Your task to perform on an android device: Search for Mexican restaurants on Maps Image 0: 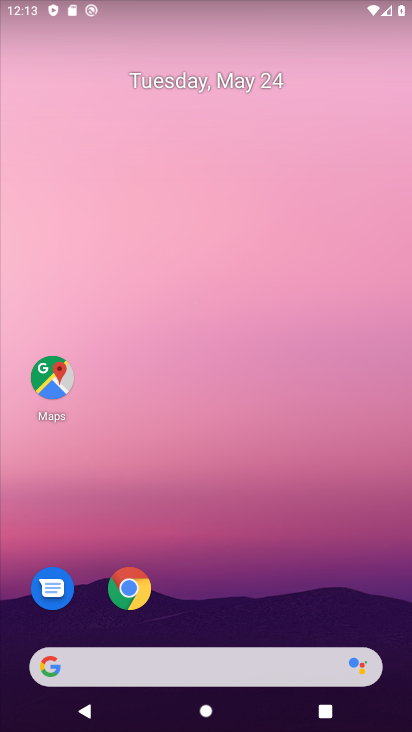
Step 0: click (58, 391)
Your task to perform on an android device: Search for Mexican restaurants on Maps Image 1: 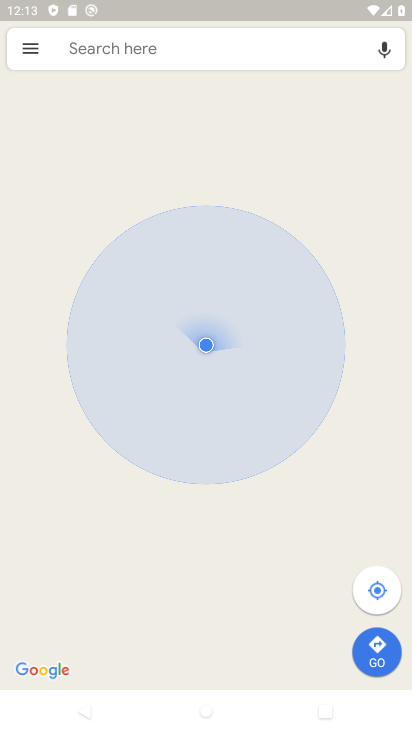
Step 1: click (127, 13)
Your task to perform on an android device: Search for Mexican restaurants on Maps Image 2: 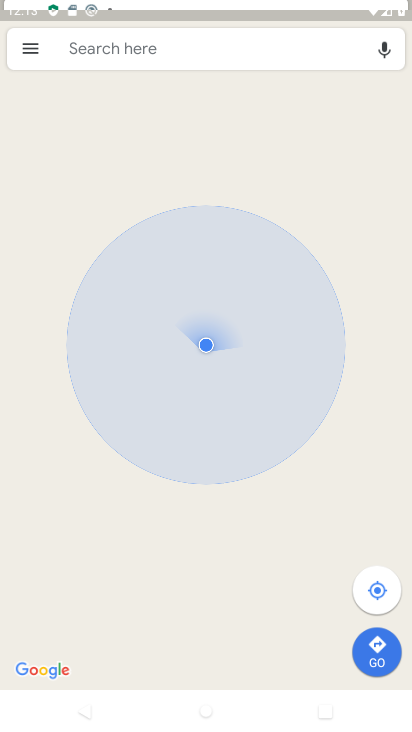
Step 2: click (145, 44)
Your task to perform on an android device: Search for Mexican restaurants on Maps Image 3: 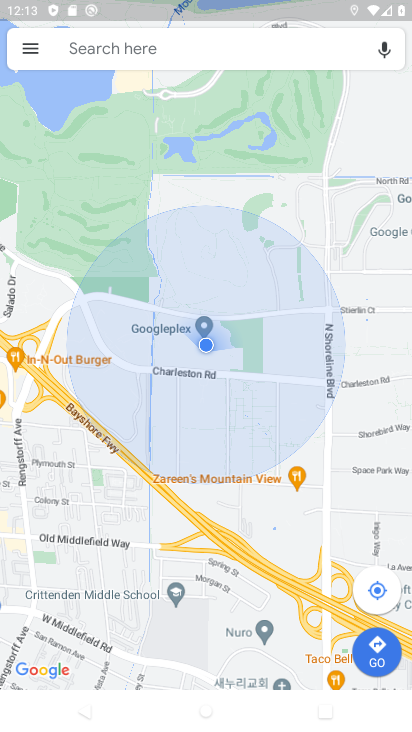
Step 3: click (126, 54)
Your task to perform on an android device: Search for Mexican restaurants on Maps Image 4: 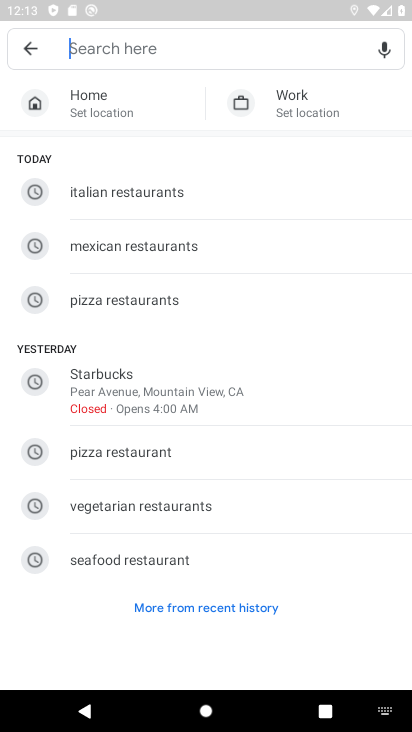
Step 4: type "mexican restaurants"
Your task to perform on an android device: Search for Mexican restaurants on Maps Image 5: 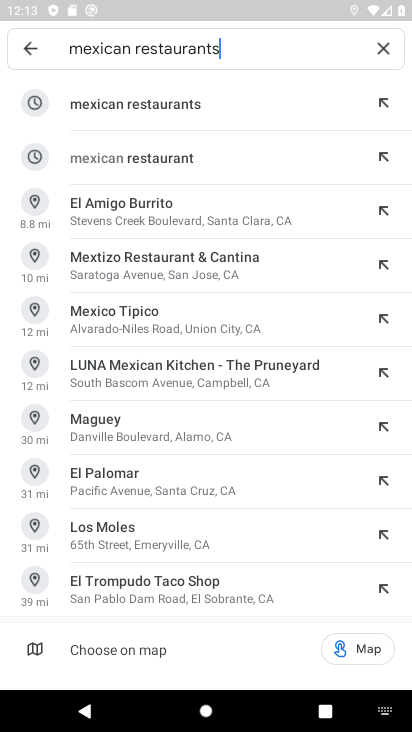
Step 5: click (165, 118)
Your task to perform on an android device: Search for Mexican restaurants on Maps Image 6: 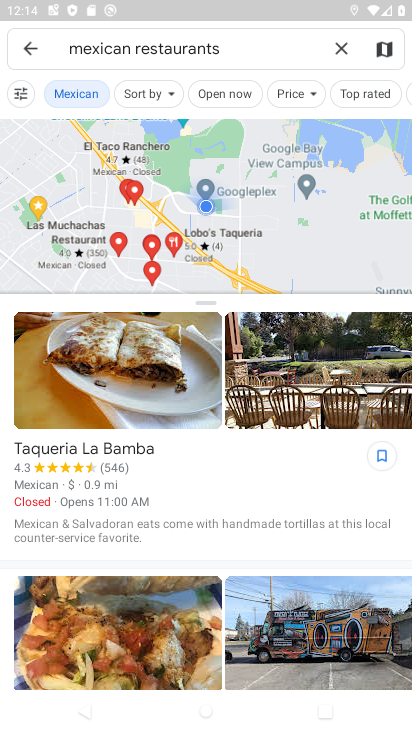
Step 6: task complete